Your task to perform on an android device: turn off location Image 0: 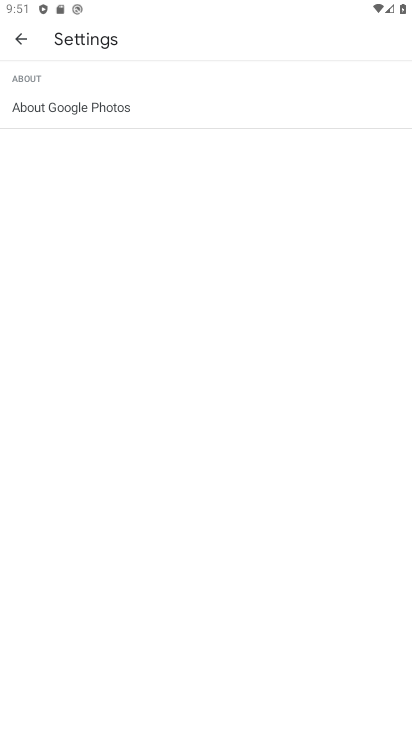
Step 0: click (21, 30)
Your task to perform on an android device: turn off location Image 1: 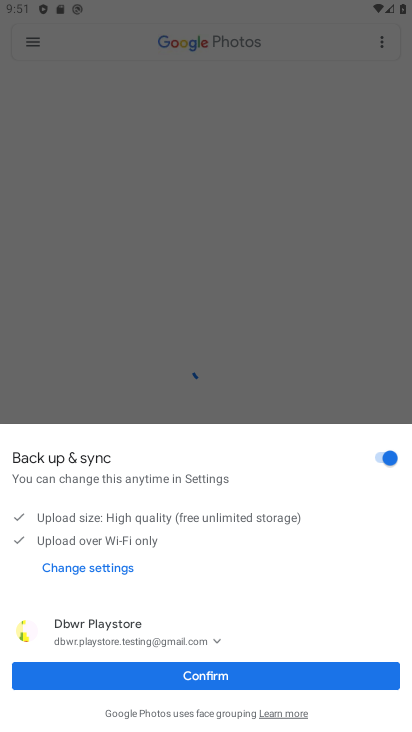
Step 1: click (212, 678)
Your task to perform on an android device: turn off location Image 2: 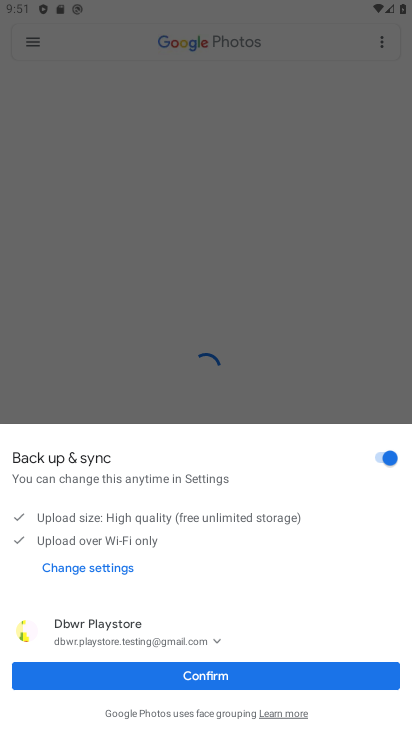
Step 2: click (213, 679)
Your task to perform on an android device: turn off location Image 3: 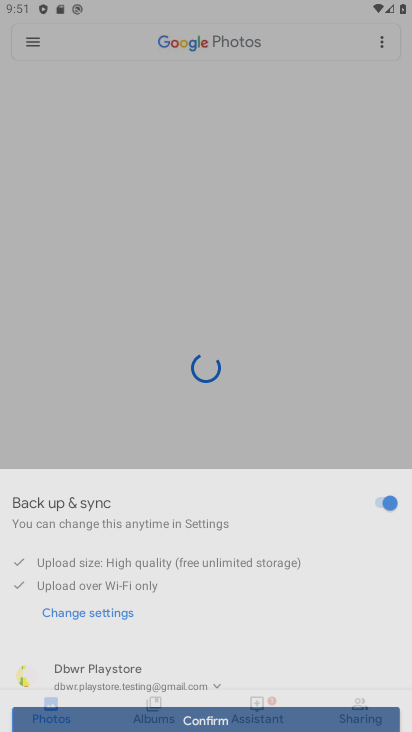
Step 3: click (213, 679)
Your task to perform on an android device: turn off location Image 4: 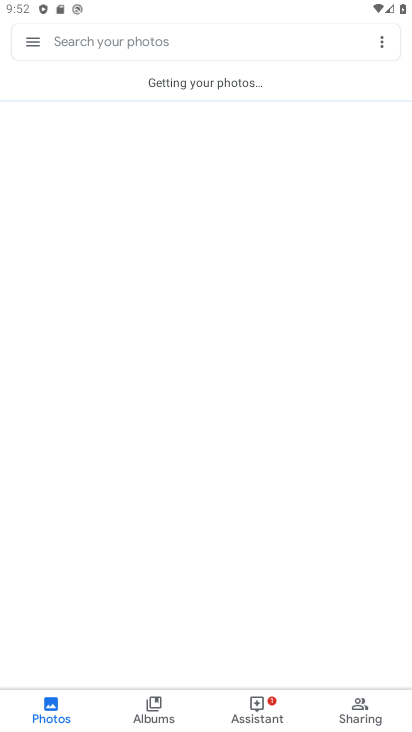
Step 4: press back button
Your task to perform on an android device: turn off location Image 5: 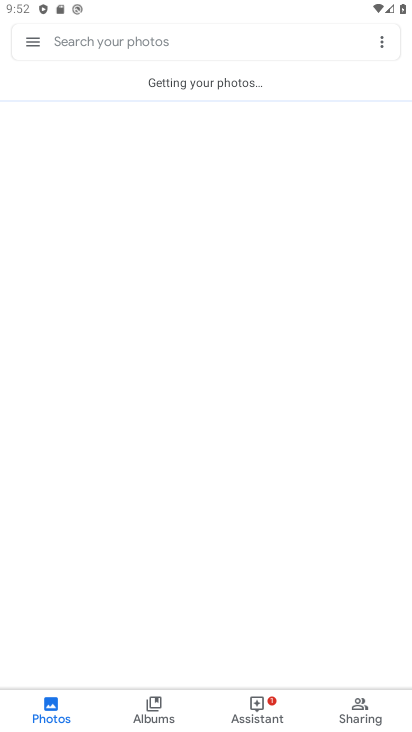
Step 5: press back button
Your task to perform on an android device: turn off location Image 6: 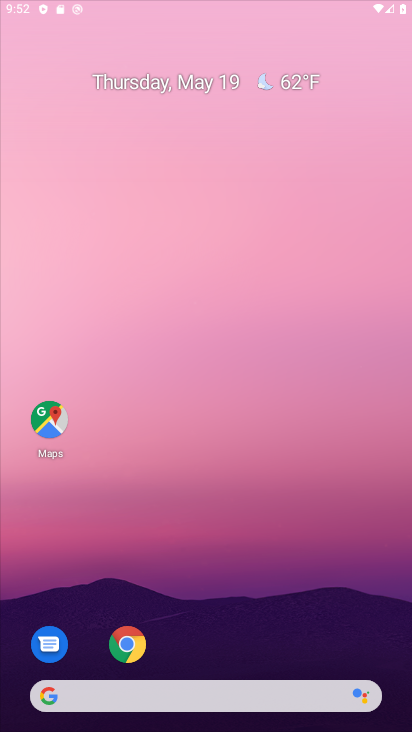
Step 6: press back button
Your task to perform on an android device: turn off location Image 7: 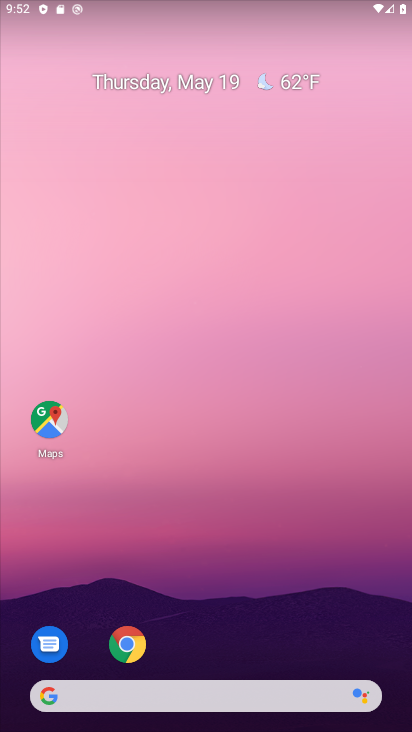
Step 7: drag from (243, 592) to (165, 19)
Your task to perform on an android device: turn off location Image 8: 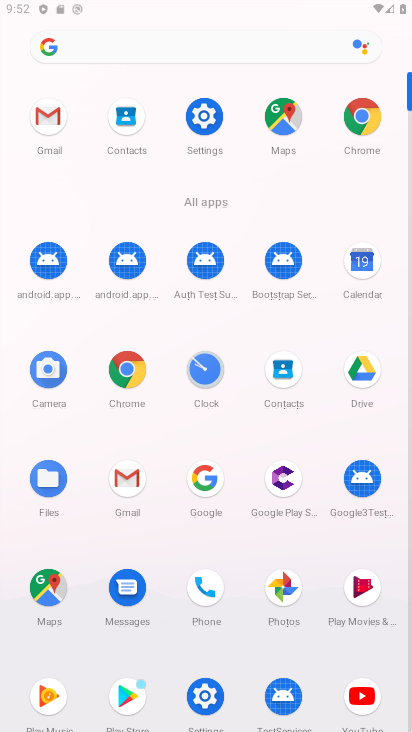
Step 8: drag from (232, 489) to (291, 52)
Your task to perform on an android device: turn off location Image 9: 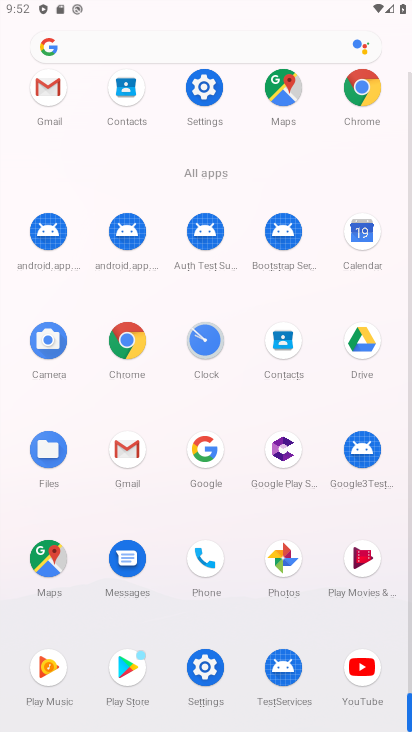
Step 9: click (273, 86)
Your task to perform on an android device: turn off location Image 10: 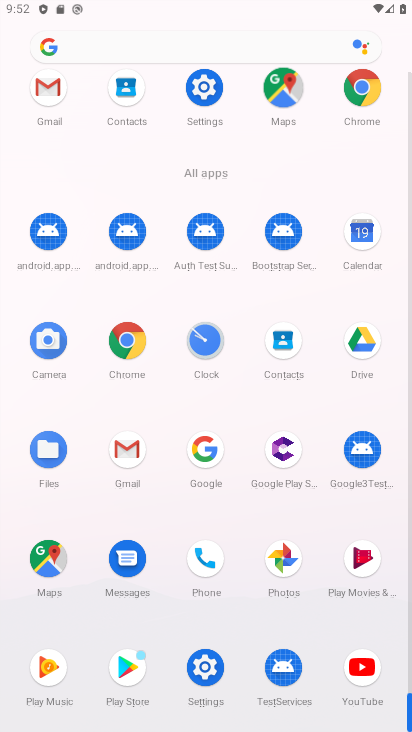
Step 10: click (274, 85)
Your task to perform on an android device: turn off location Image 11: 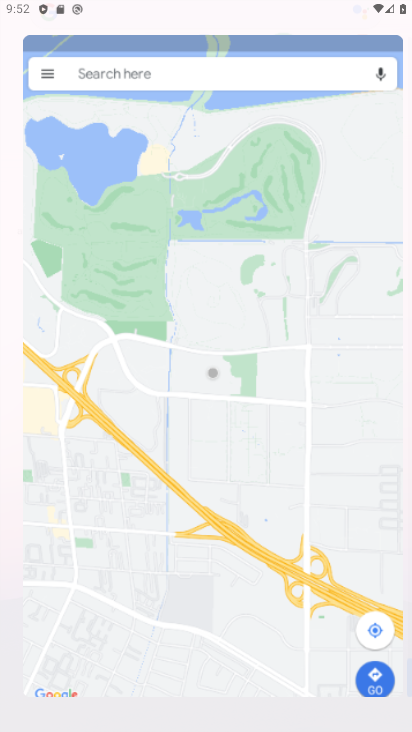
Step 11: click (278, 87)
Your task to perform on an android device: turn off location Image 12: 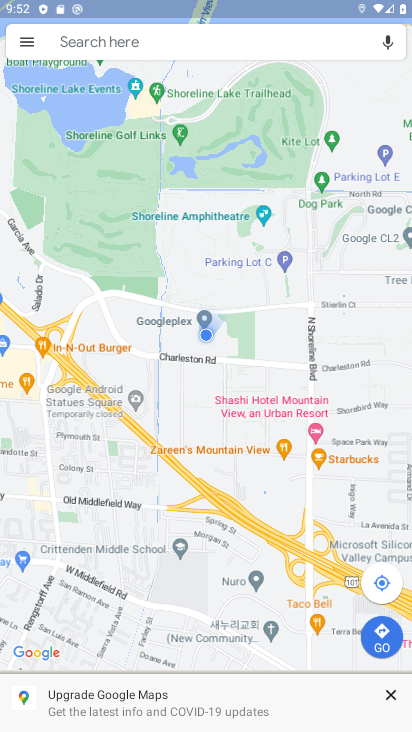
Step 12: click (15, 45)
Your task to perform on an android device: turn off location Image 13: 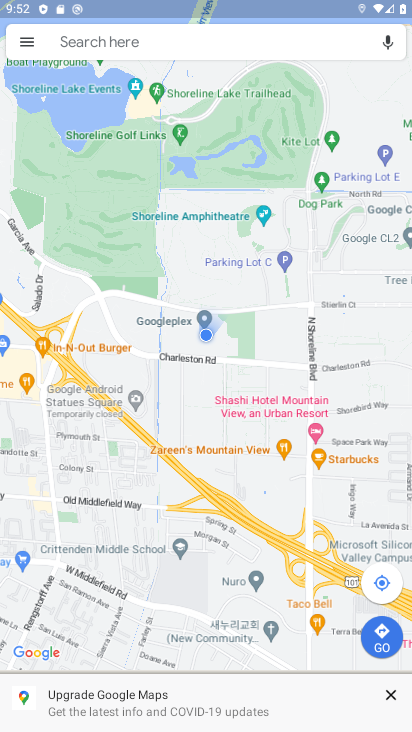
Step 13: press back button
Your task to perform on an android device: turn off location Image 14: 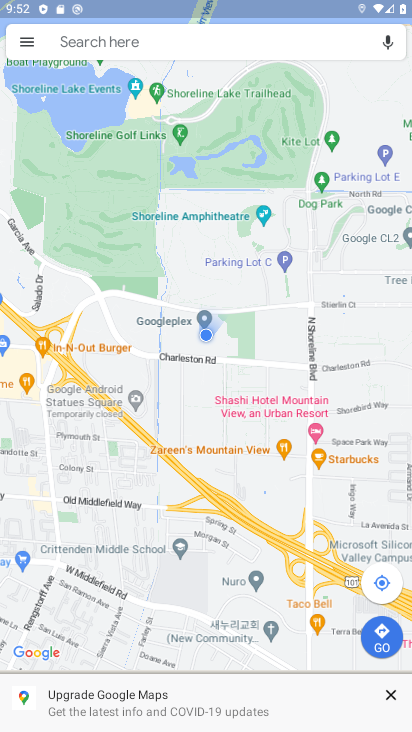
Step 14: press back button
Your task to perform on an android device: turn off location Image 15: 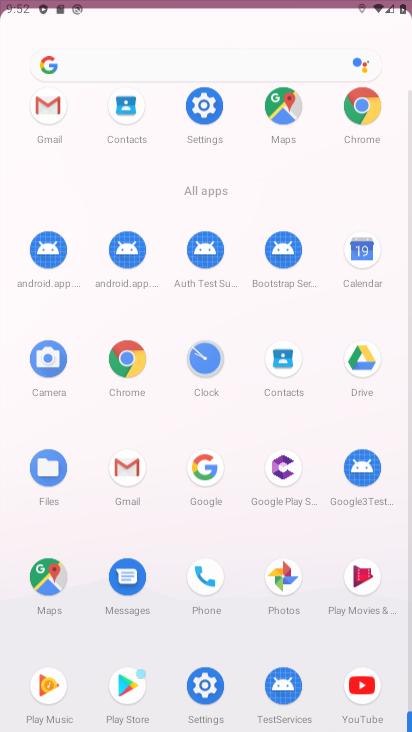
Step 15: press back button
Your task to perform on an android device: turn off location Image 16: 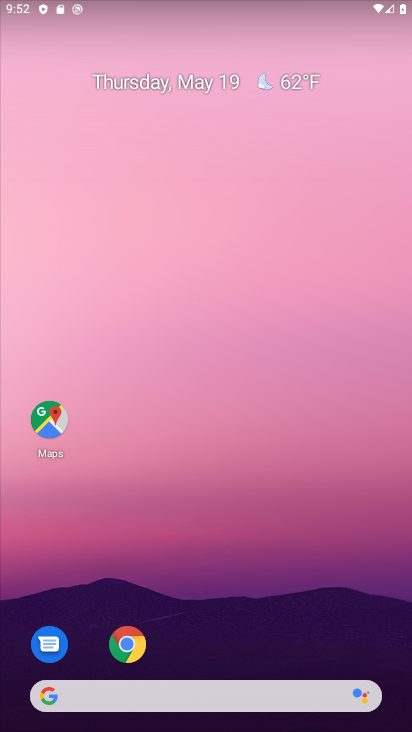
Step 16: press back button
Your task to perform on an android device: turn off location Image 17: 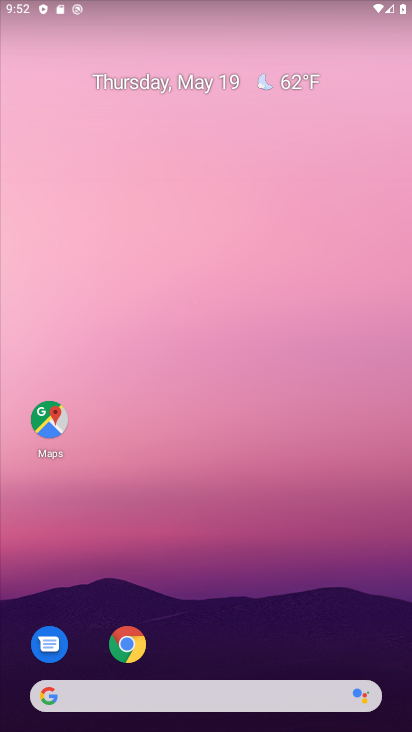
Step 17: press back button
Your task to perform on an android device: turn off location Image 18: 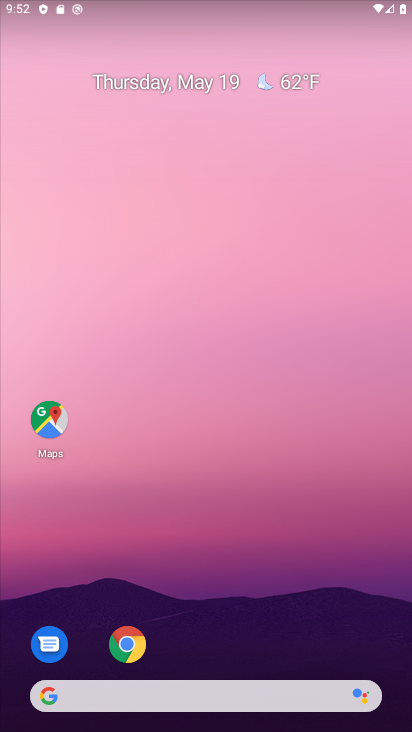
Step 18: press home button
Your task to perform on an android device: turn off location Image 19: 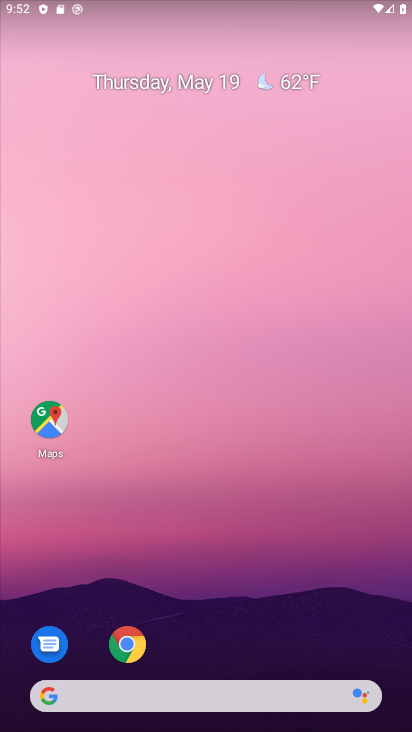
Step 19: drag from (218, 577) to (109, 34)
Your task to perform on an android device: turn off location Image 20: 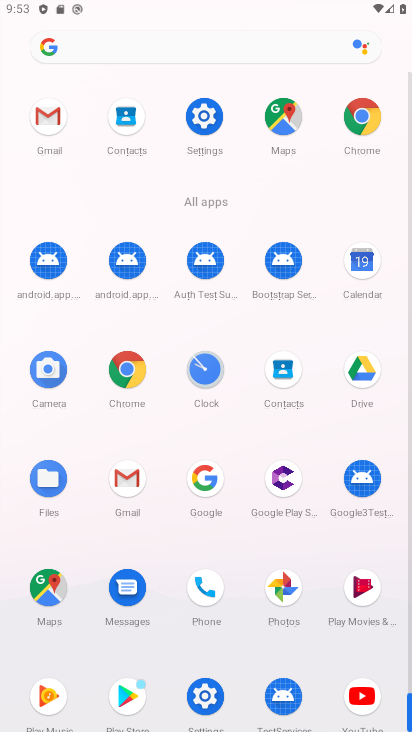
Step 20: click (209, 689)
Your task to perform on an android device: turn off location Image 21: 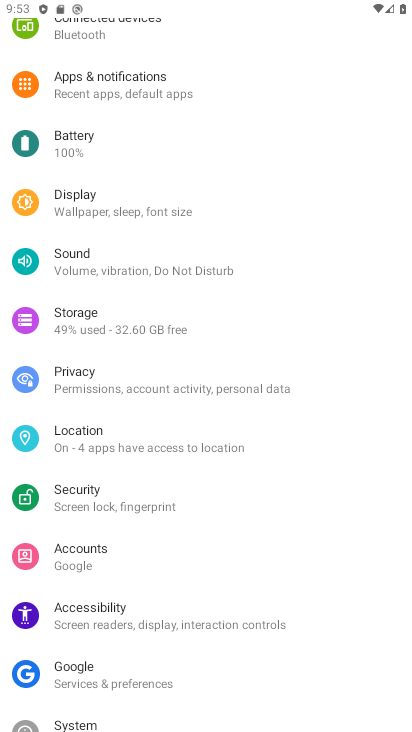
Step 21: click (100, 441)
Your task to perform on an android device: turn off location Image 22: 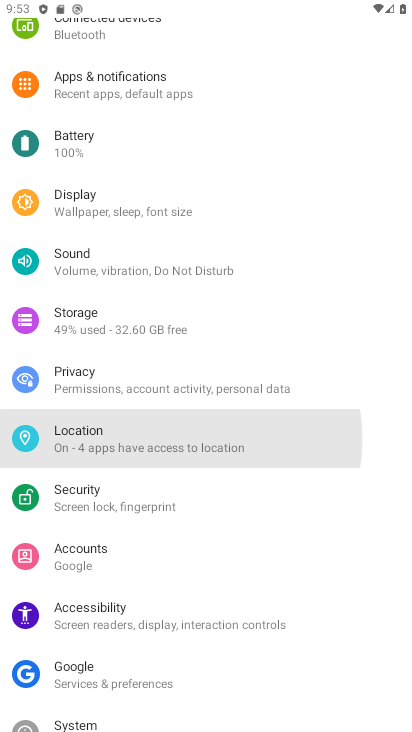
Step 22: click (100, 441)
Your task to perform on an android device: turn off location Image 23: 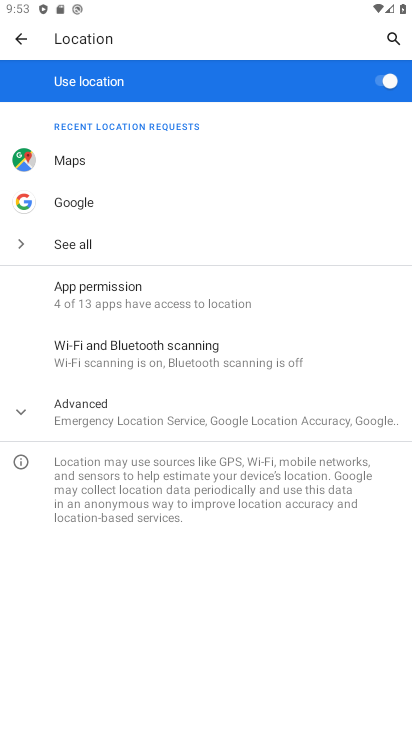
Step 23: click (103, 410)
Your task to perform on an android device: turn off location Image 24: 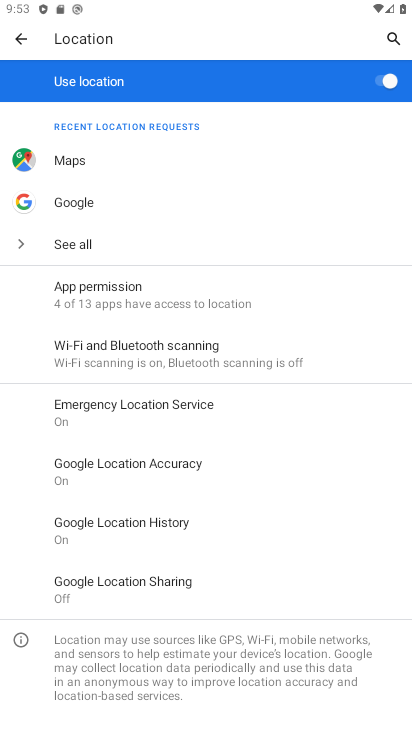
Step 24: click (383, 75)
Your task to perform on an android device: turn off location Image 25: 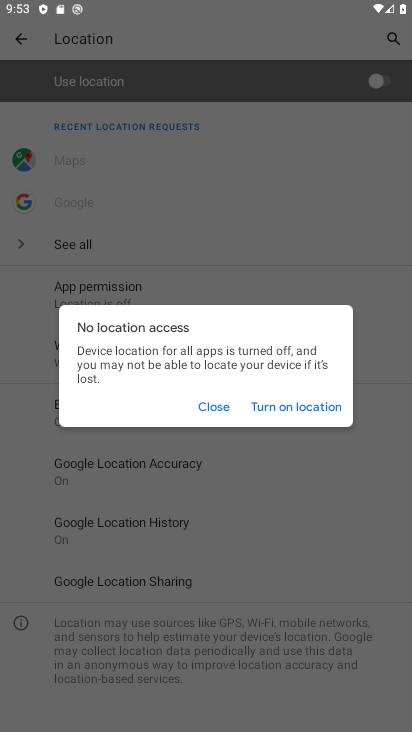
Step 25: task complete